Your task to perform on an android device: toggle translation in the chrome app Image 0: 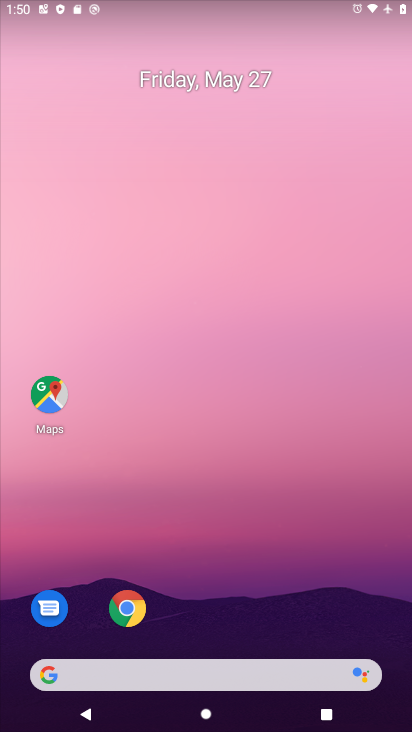
Step 0: press home button
Your task to perform on an android device: toggle translation in the chrome app Image 1: 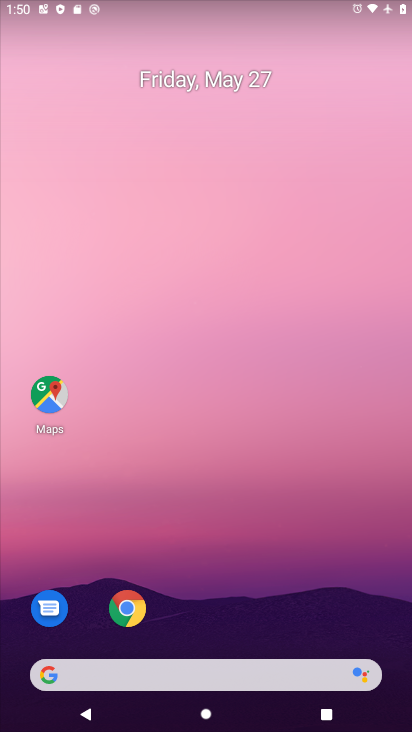
Step 1: click (132, 616)
Your task to perform on an android device: toggle translation in the chrome app Image 2: 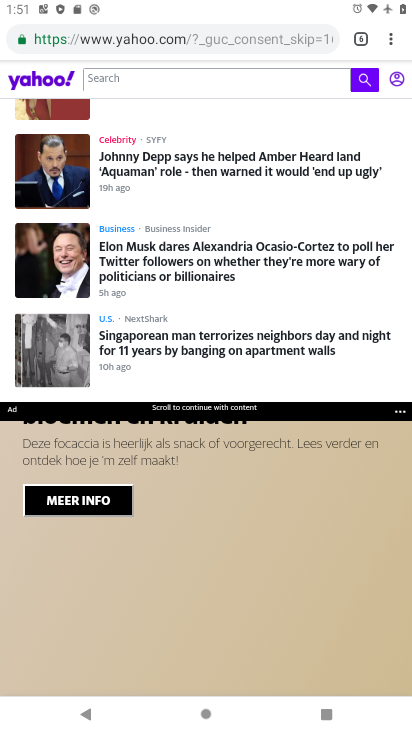
Step 2: drag from (388, 36) to (272, 466)
Your task to perform on an android device: toggle translation in the chrome app Image 3: 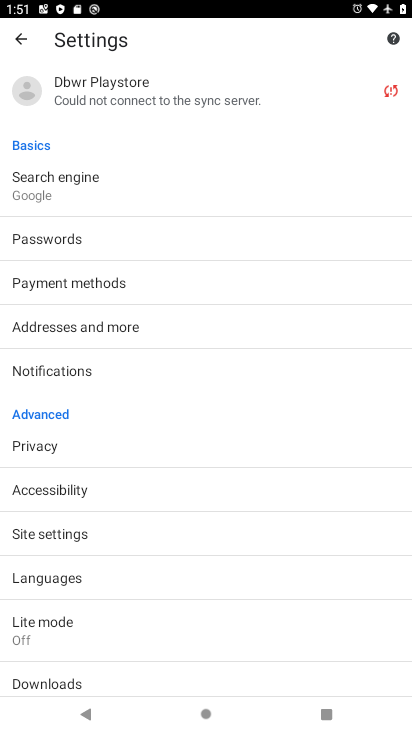
Step 3: click (103, 570)
Your task to perform on an android device: toggle translation in the chrome app Image 4: 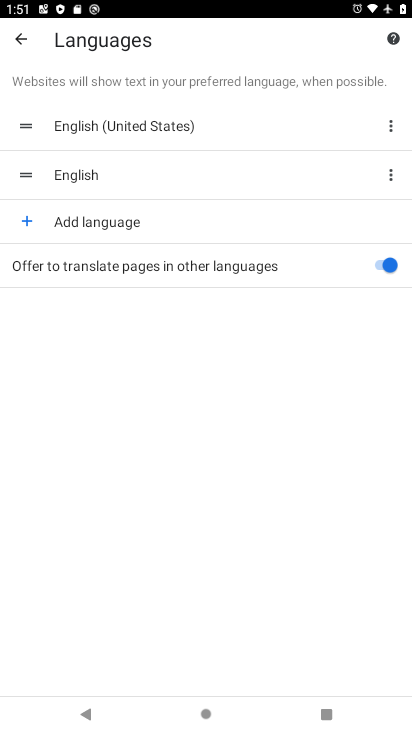
Step 4: click (378, 257)
Your task to perform on an android device: toggle translation in the chrome app Image 5: 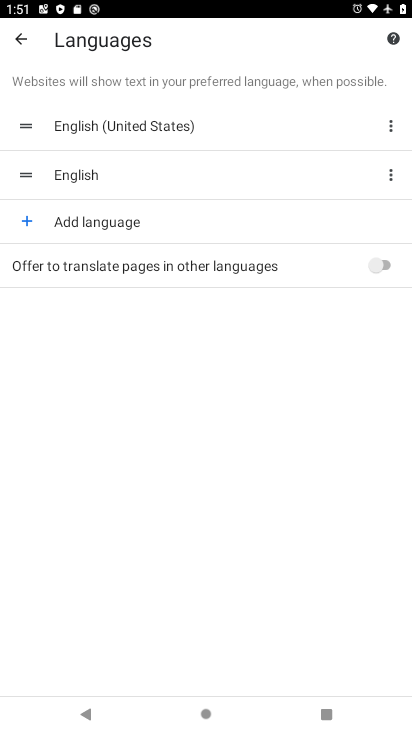
Step 5: task complete